Your task to perform on an android device: check out phone information Image 0: 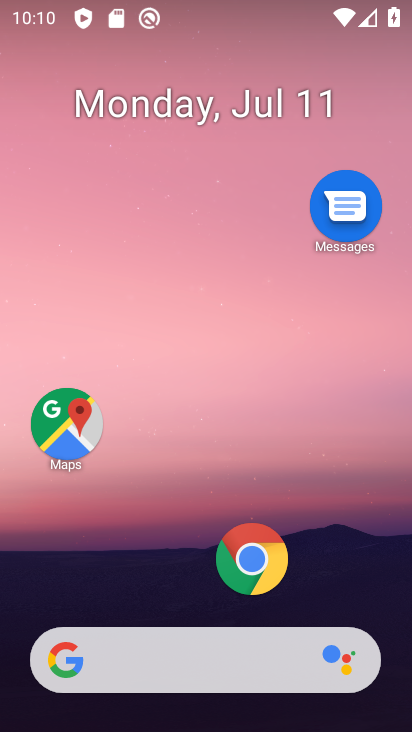
Step 0: drag from (377, 527) to (317, 122)
Your task to perform on an android device: check out phone information Image 1: 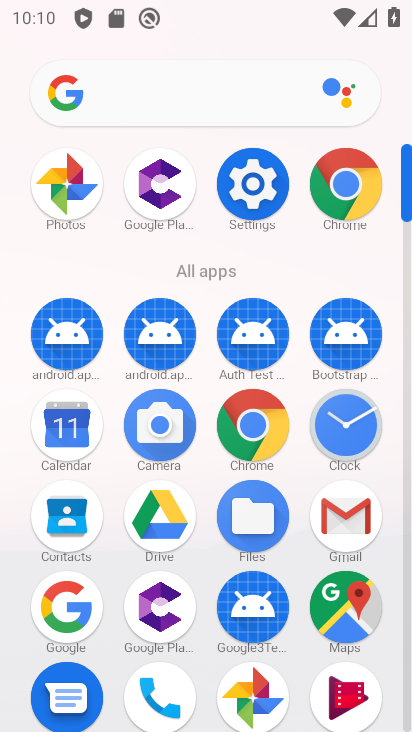
Step 1: drag from (289, 461) to (254, 242)
Your task to perform on an android device: check out phone information Image 2: 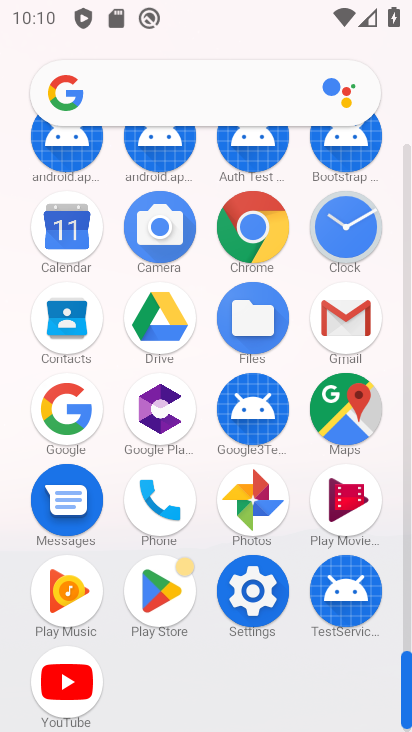
Step 2: click (167, 500)
Your task to perform on an android device: check out phone information Image 3: 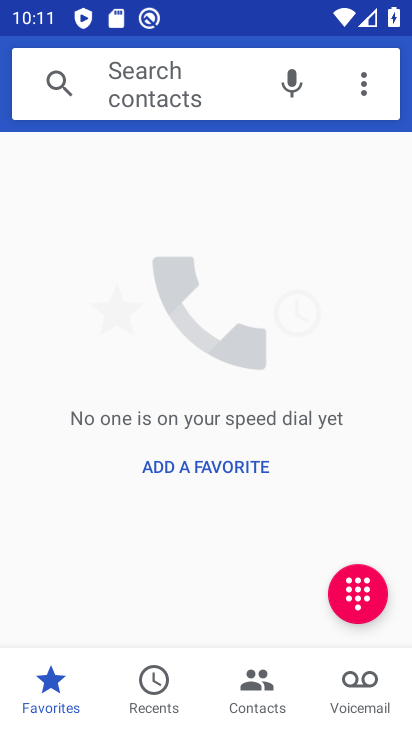
Step 3: task complete